Your task to perform on an android device: turn on translation in the chrome app Image 0: 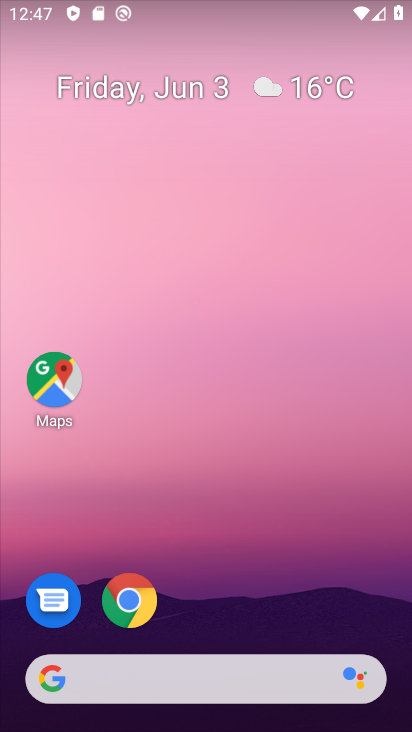
Step 0: click (156, 61)
Your task to perform on an android device: turn on translation in the chrome app Image 1: 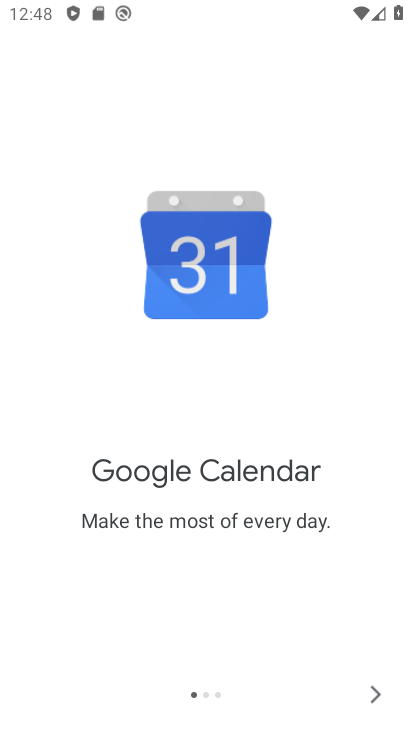
Step 1: press back button
Your task to perform on an android device: turn on translation in the chrome app Image 2: 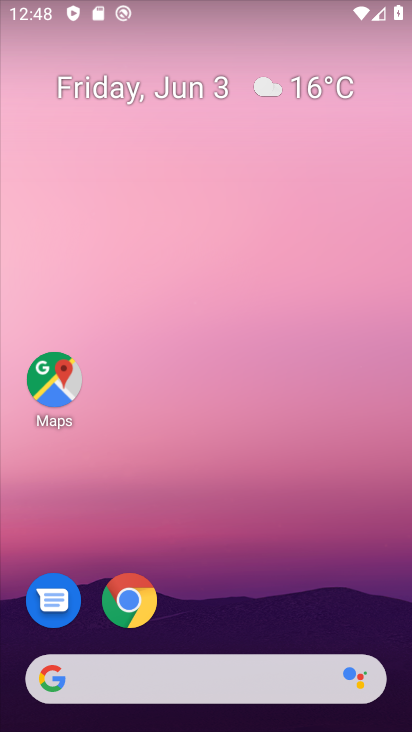
Step 2: click (169, 14)
Your task to perform on an android device: turn on translation in the chrome app Image 3: 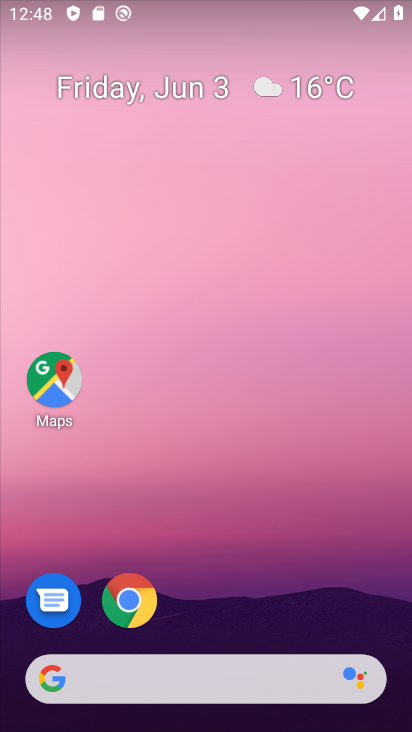
Step 3: drag from (194, 350) to (173, 40)
Your task to perform on an android device: turn on translation in the chrome app Image 4: 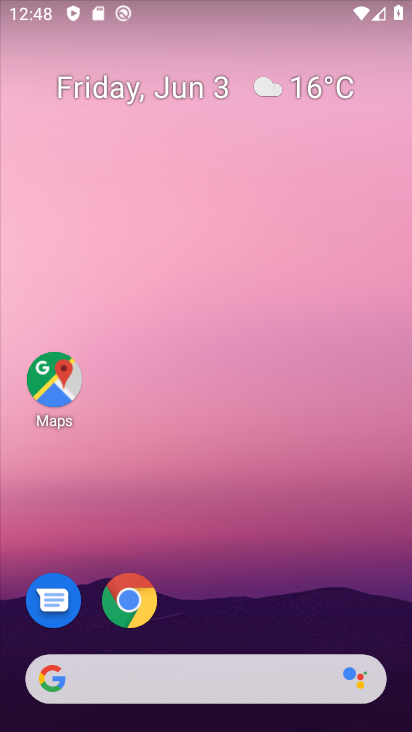
Step 4: drag from (242, 562) to (193, 3)
Your task to perform on an android device: turn on translation in the chrome app Image 5: 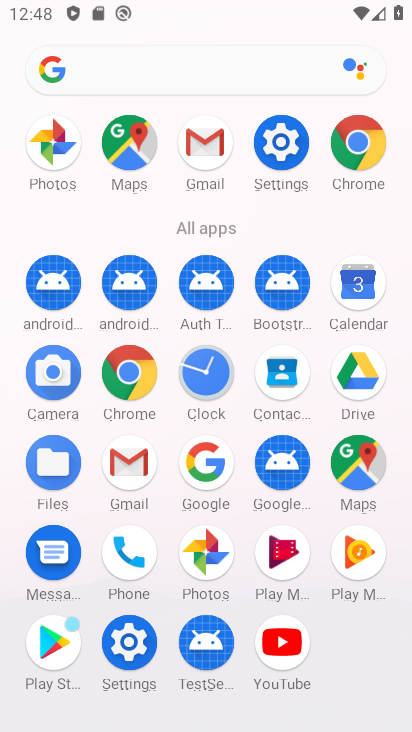
Step 5: click (359, 144)
Your task to perform on an android device: turn on translation in the chrome app Image 6: 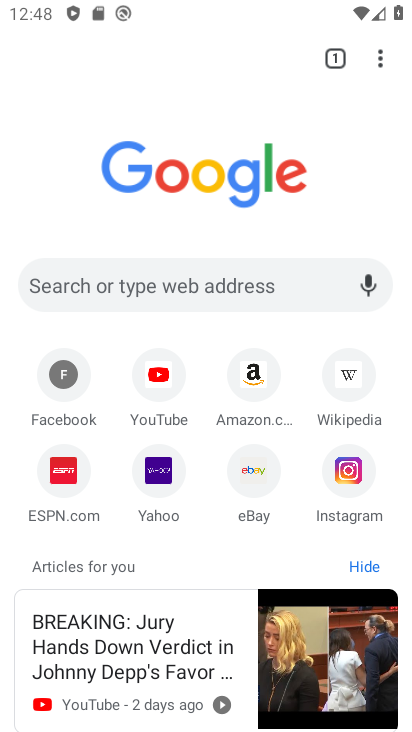
Step 6: drag from (378, 61) to (183, 561)
Your task to perform on an android device: turn on translation in the chrome app Image 7: 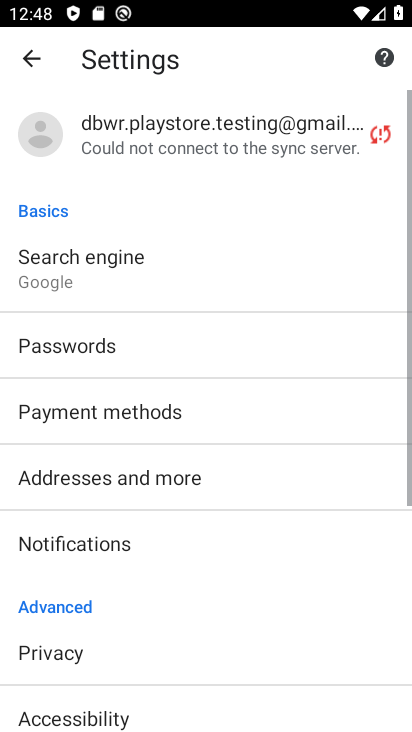
Step 7: drag from (190, 620) to (208, 204)
Your task to perform on an android device: turn on translation in the chrome app Image 8: 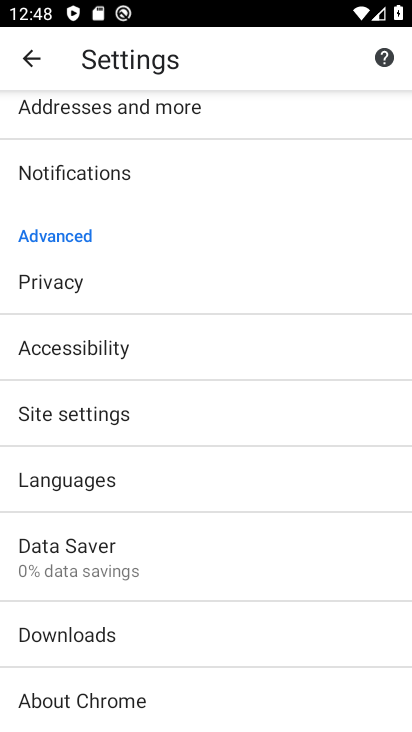
Step 8: click (128, 483)
Your task to perform on an android device: turn on translation in the chrome app Image 9: 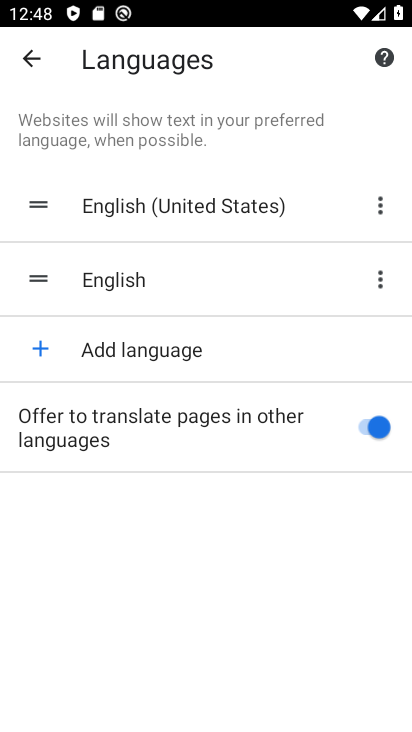
Step 9: task complete